Your task to perform on an android device: open a new tab in the chrome app Image 0: 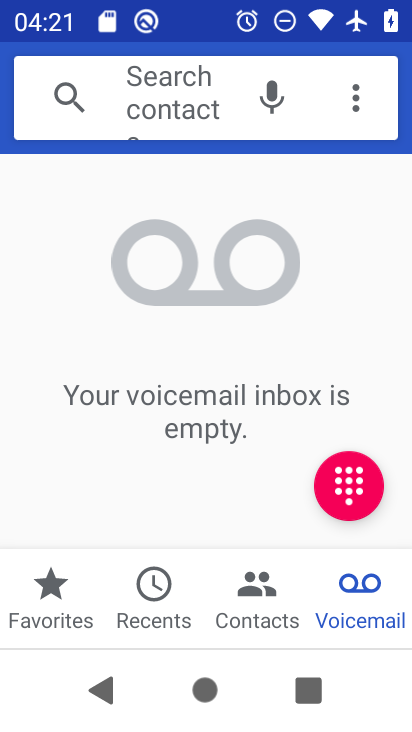
Step 0: press home button
Your task to perform on an android device: open a new tab in the chrome app Image 1: 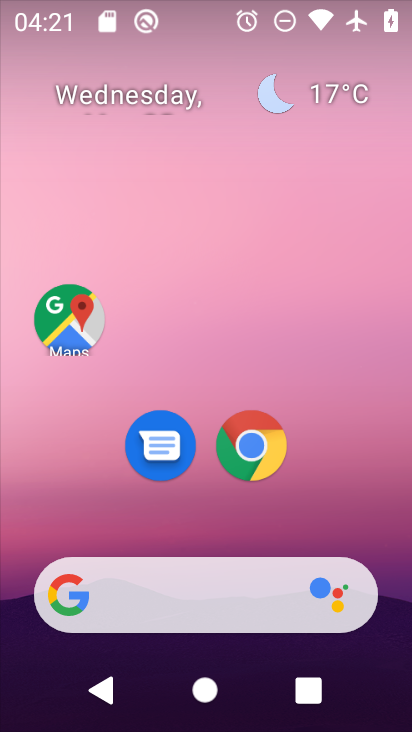
Step 1: click (261, 418)
Your task to perform on an android device: open a new tab in the chrome app Image 2: 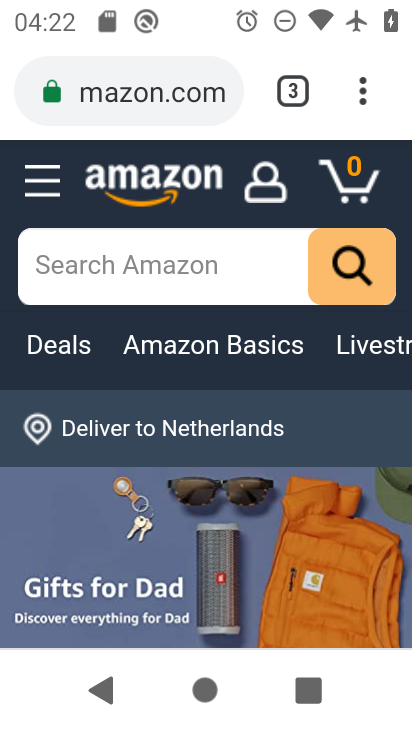
Step 2: task complete